Your task to perform on an android device: turn on improve location accuracy Image 0: 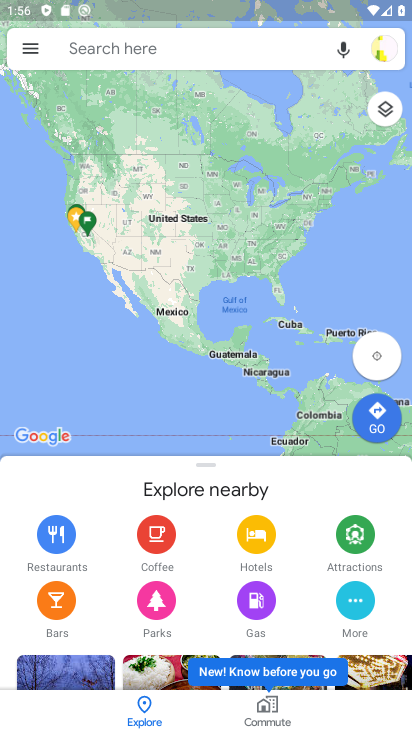
Step 0: press enter
Your task to perform on an android device: turn on improve location accuracy Image 1: 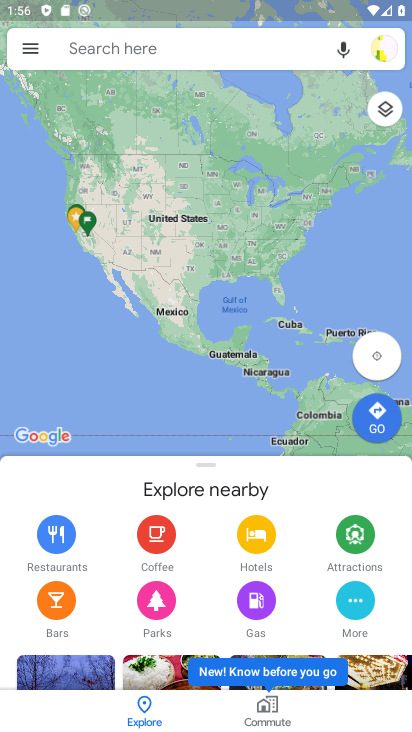
Step 1: press home button
Your task to perform on an android device: turn on improve location accuracy Image 2: 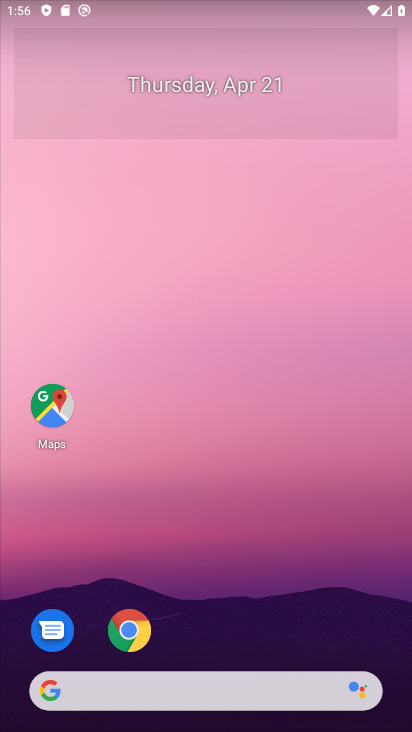
Step 2: drag from (337, 633) to (297, 10)
Your task to perform on an android device: turn on improve location accuracy Image 3: 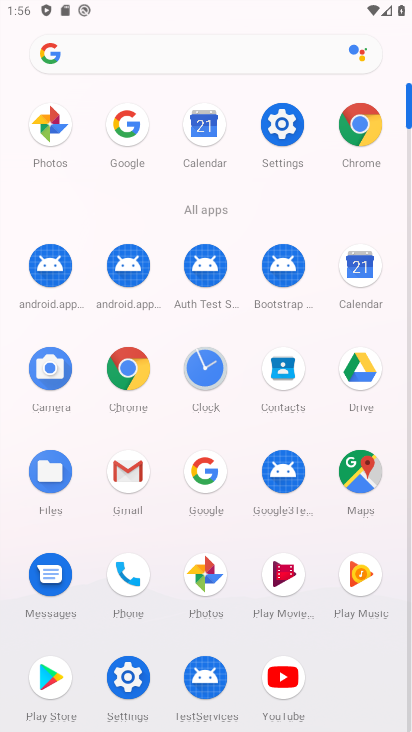
Step 3: click (272, 126)
Your task to perform on an android device: turn on improve location accuracy Image 4: 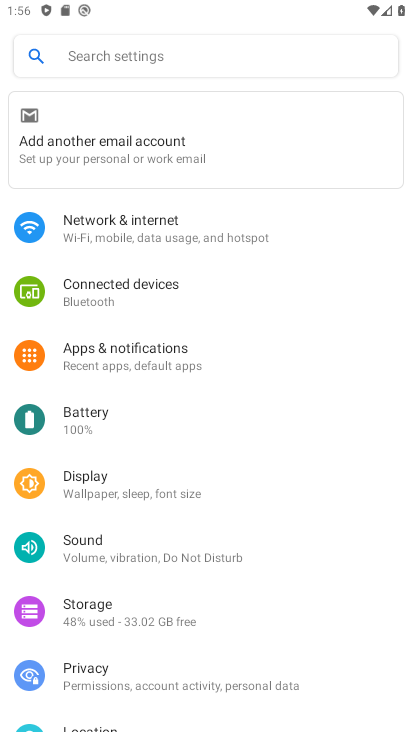
Step 4: drag from (253, 639) to (245, 339)
Your task to perform on an android device: turn on improve location accuracy Image 5: 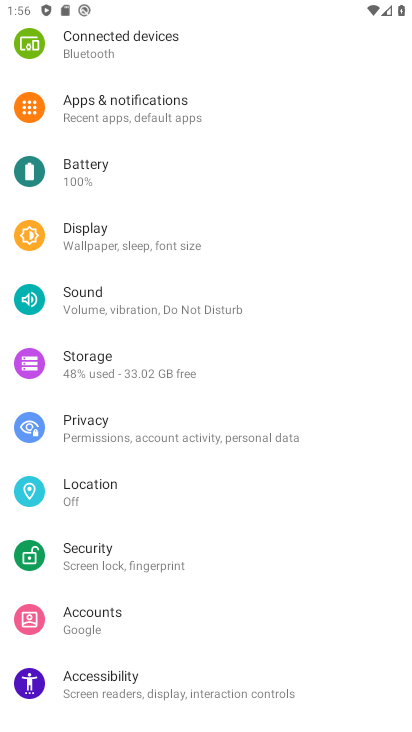
Step 5: click (72, 491)
Your task to perform on an android device: turn on improve location accuracy Image 6: 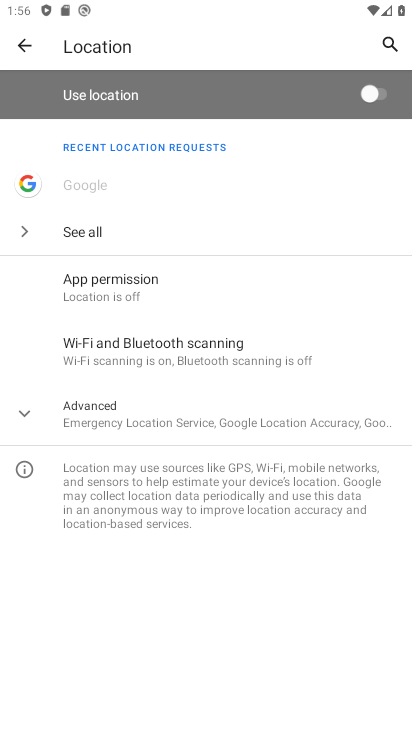
Step 6: click (19, 422)
Your task to perform on an android device: turn on improve location accuracy Image 7: 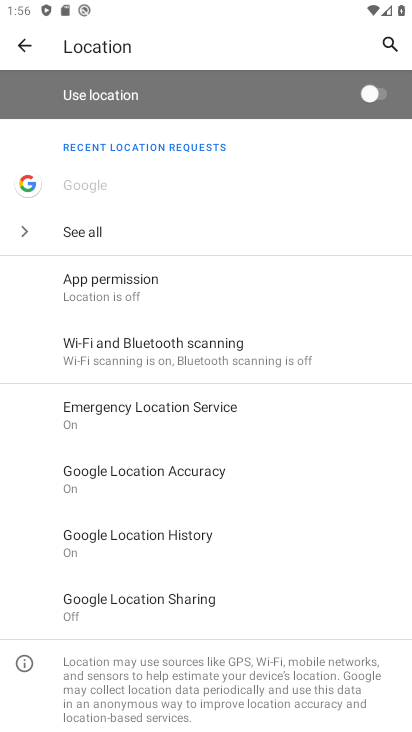
Step 7: click (131, 478)
Your task to perform on an android device: turn on improve location accuracy Image 8: 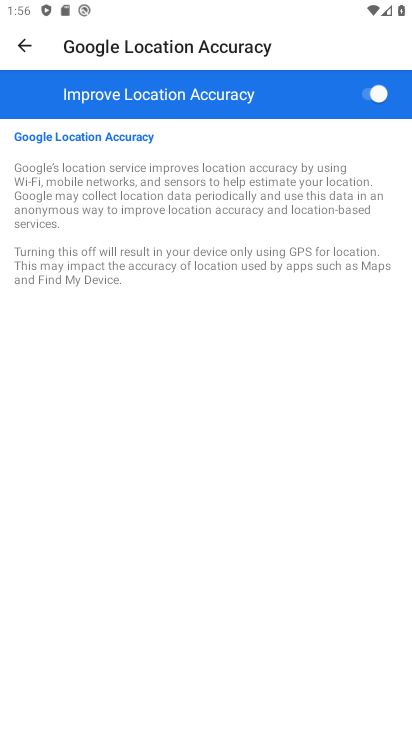
Step 8: task complete